Your task to perform on an android device: Open Google Maps Image 0: 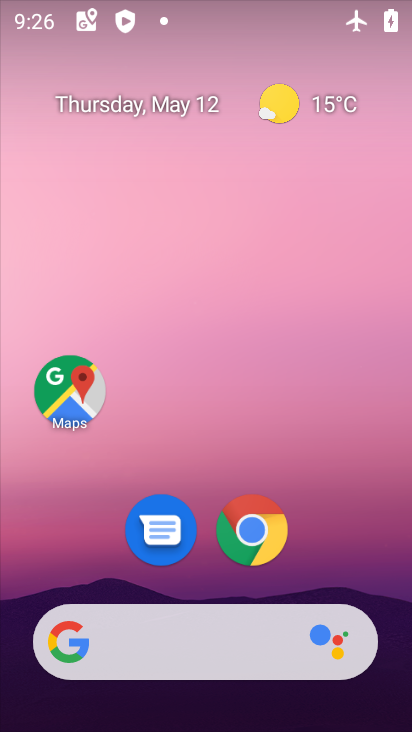
Step 0: click (82, 386)
Your task to perform on an android device: Open Google Maps Image 1: 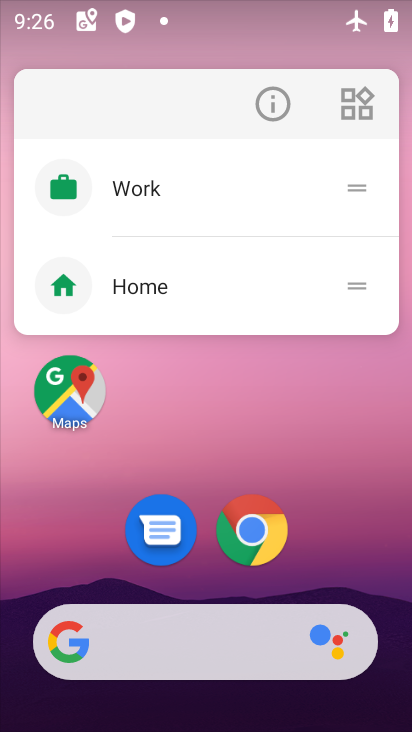
Step 1: click (82, 386)
Your task to perform on an android device: Open Google Maps Image 2: 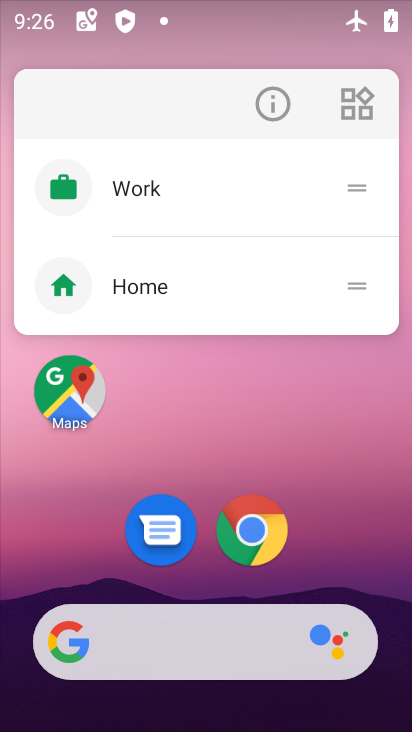
Step 2: click (83, 386)
Your task to perform on an android device: Open Google Maps Image 3: 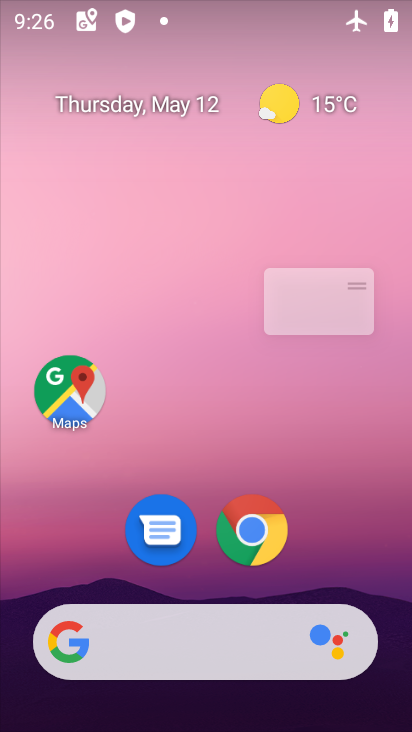
Step 3: click (83, 386)
Your task to perform on an android device: Open Google Maps Image 4: 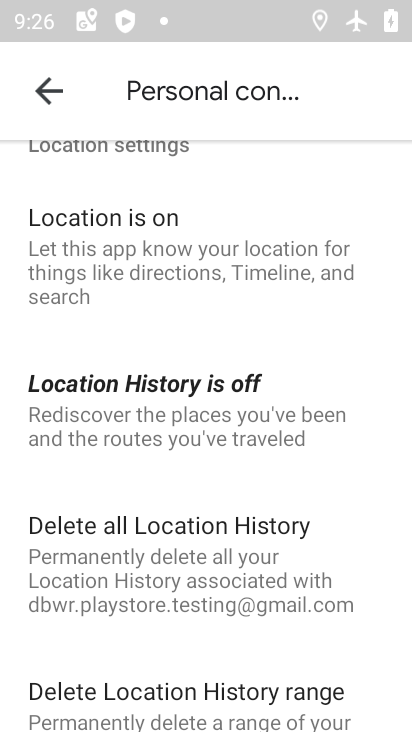
Step 4: click (39, 90)
Your task to perform on an android device: Open Google Maps Image 5: 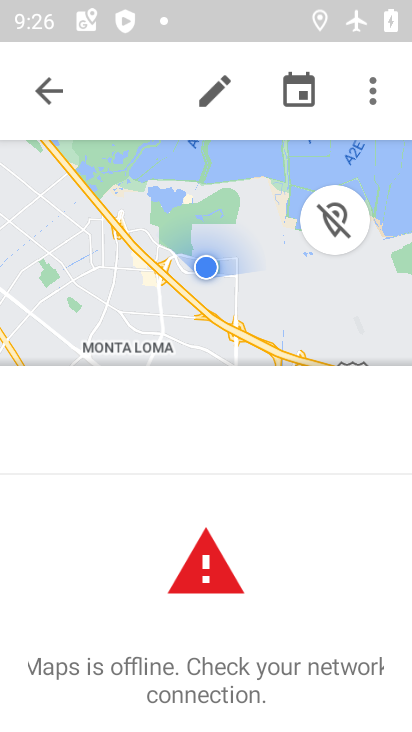
Step 5: click (49, 86)
Your task to perform on an android device: Open Google Maps Image 6: 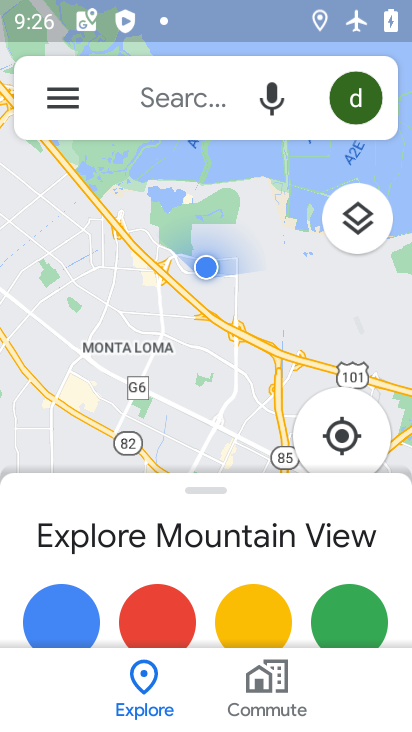
Step 6: task complete